Your task to perform on an android device: Clear the cart on newegg.com. Add "dell xps" to the cart on newegg.com, then select checkout. Image 0: 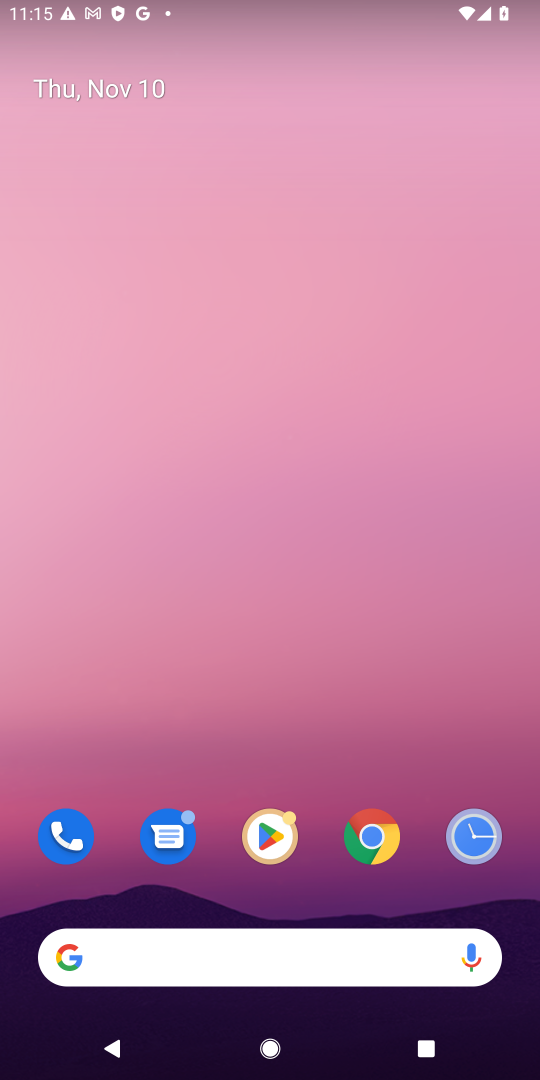
Step 0: drag from (166, 910) to (308, 127)
Your task to perform on an android device: Clear the cart on newegg.com. Add "dell xps" to the cart on newegg.com, then select checkout. Image 1: 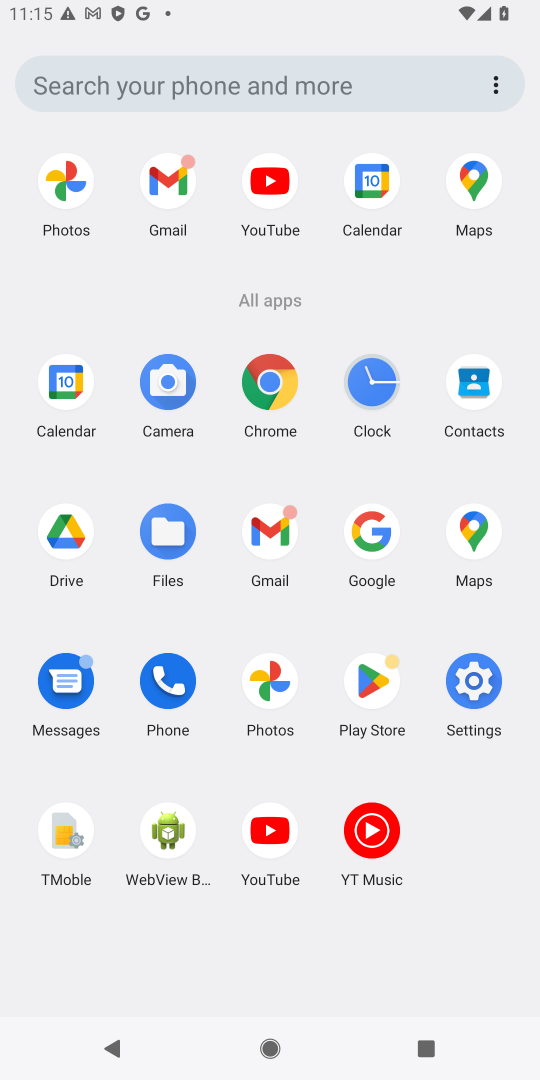
Step 1: click (292, 398)
Your task to perform on an android device: Clear the cart on newegg.com. Add "dell xps" to the cart on newegg.com, then select checkout. Image 2: 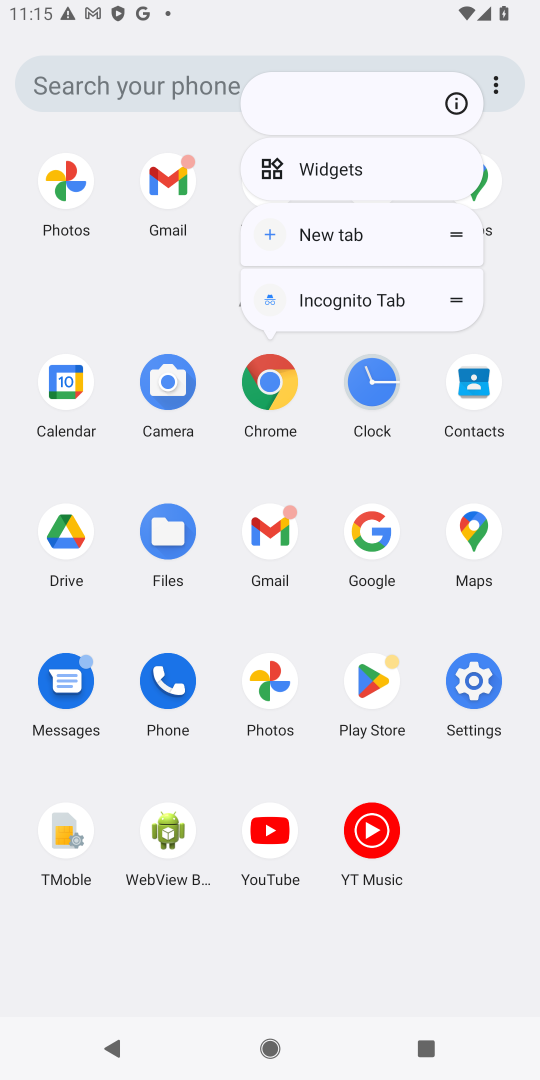
Step 2: click (292, 397)
Your task to perform on an android device: Clear the cart on newegg.com. Add "dell xps" to the cart on newegg.com, then select checkout. Image 3: 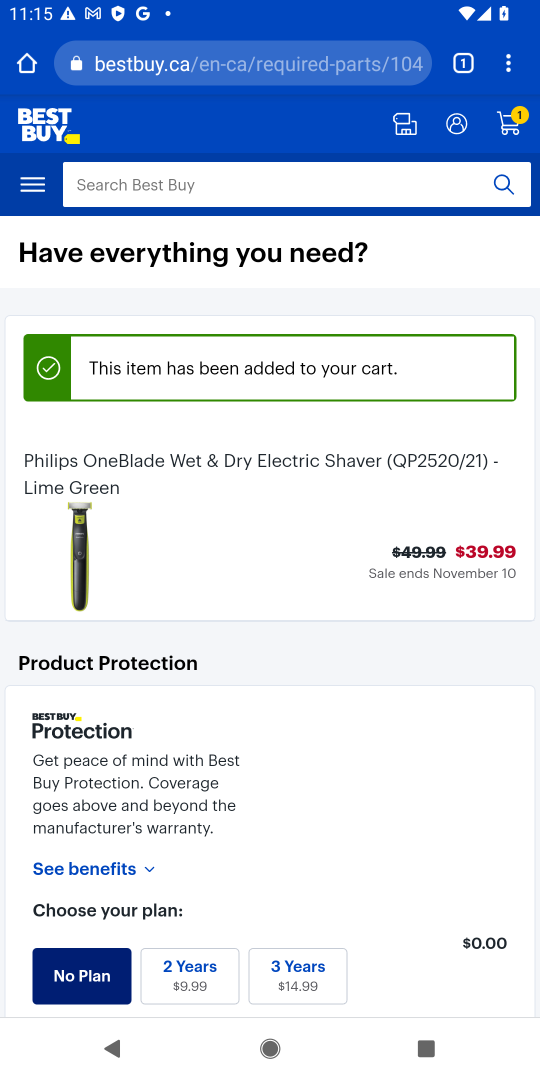
Step 3: click (250, 74)
Your task to perform on an android device: Clear the cart on newegg.com. Add "dell xps" to the cart on newegg.com, then select checkout. Image 4: 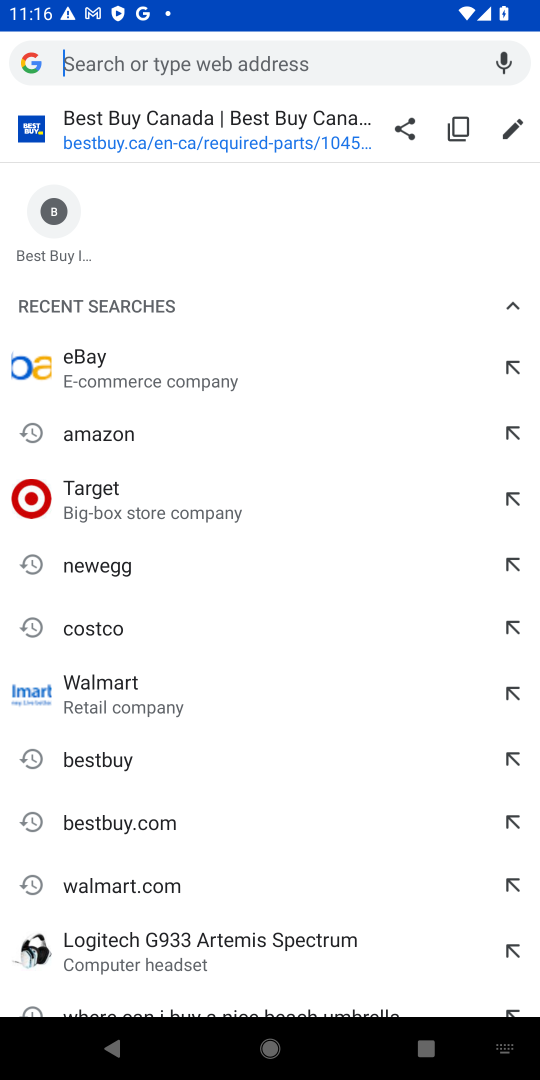
Step 4: type "newegg.com"
Your task to perform on an android device: Clear the cart on newegg.com. Add "dell xps" to the cart on newegg.com, then select checkout. Image 5: 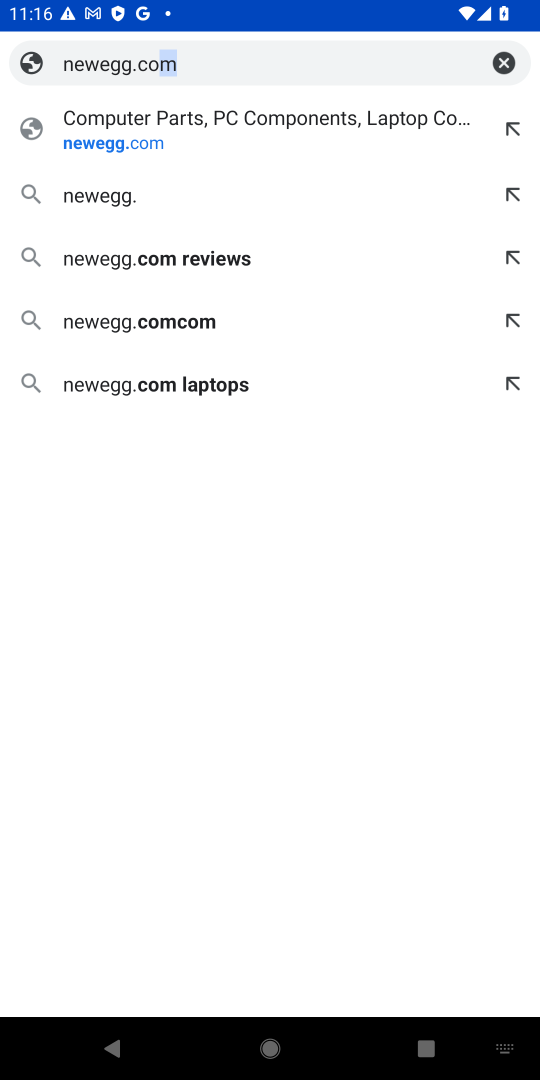
Step 5: press enter
Your task to perform on an android device: Clear the cart on newegg.com. Add "dell xps" to the cart on newegg.com, then select checkout. Image 6: 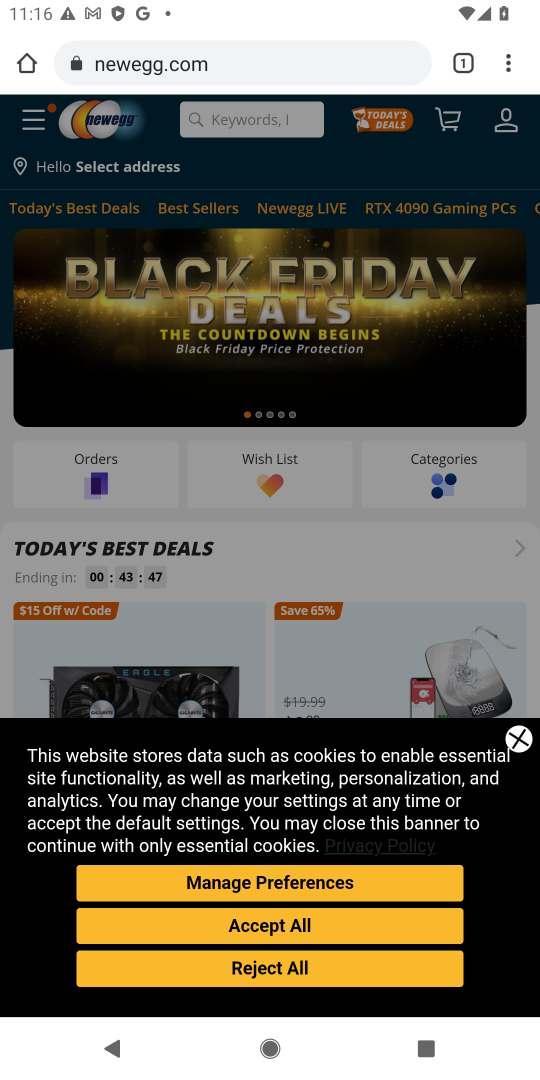
Step 6: click (240, 116)
Your task to perform on an android device: Clear the cart on newegg.com. Add "dell xps" to the cart on newegg.com, then select checkout. Image 7: 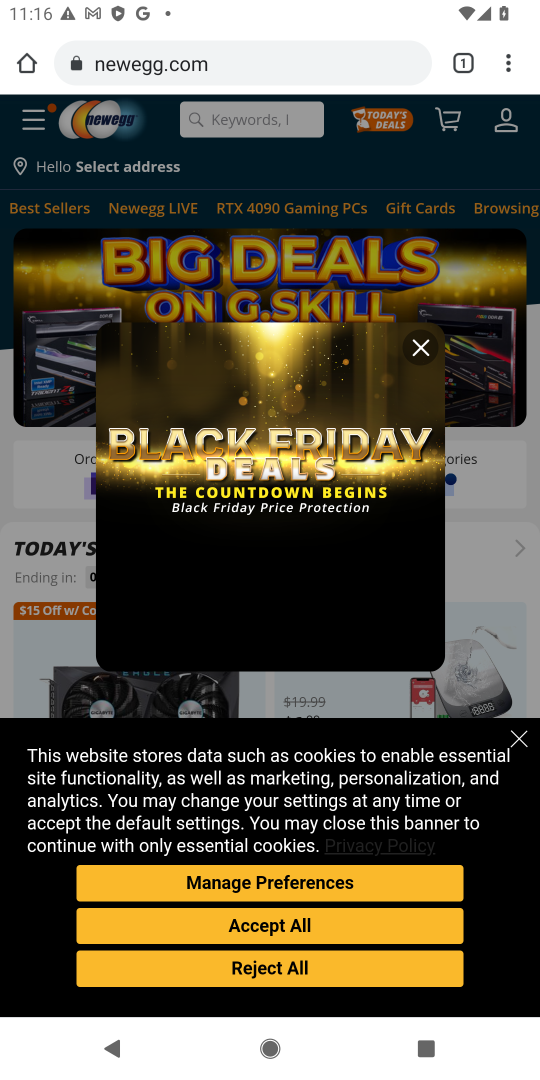
Step 7: click (264, 122)
Your task to perform on an android device: Clear the cart on newegg.com. Add "dell xps" to the cart on newegg.com, then select checkout. Image 8: 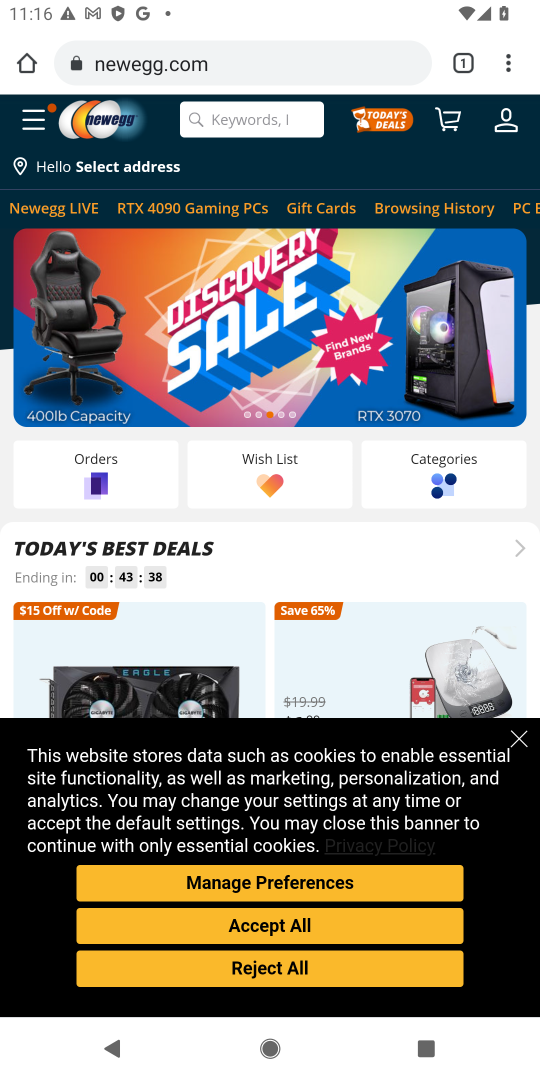
Step 8: click (336, 921)
Your task to perform on an android device: Clear the cart on newegg.com. Add "dell xps" to the cart on newegg.com, then select checkout. Image 9: 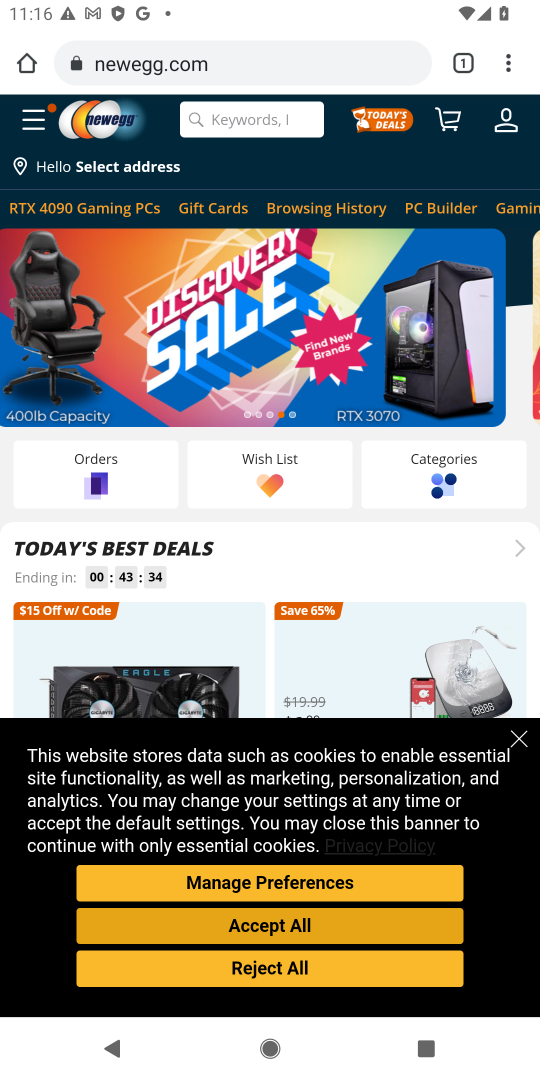
Step 9: click (293, 920)
Your task to perform on an android device: Clear the cart on newegg.com. Add "dell xps" to the cart on newegg.com, then select checkout. Image 10: 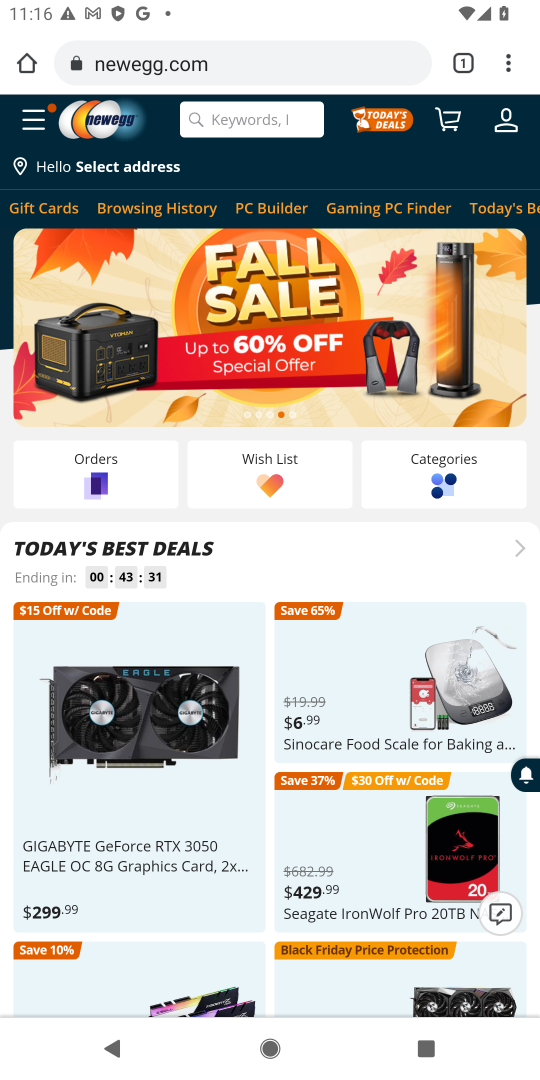
Step 10: click (224, 123)
Your task to perform on an android device: Clear the cart on newegg.com. Add "dell xps" to the cart on newegg.com, then select checkout. Image 11: 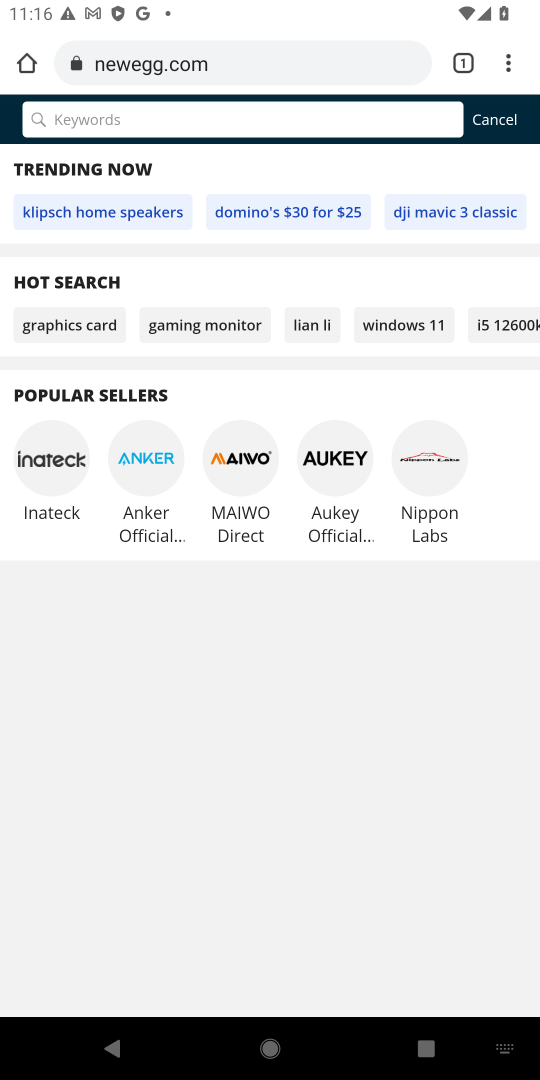
Step 11: type "dell xps"
Your task to perform on an android device: Clear the cart on newegg.com. Add "dell xps" to the cart on newegg.com, then select checkout. Image 12: 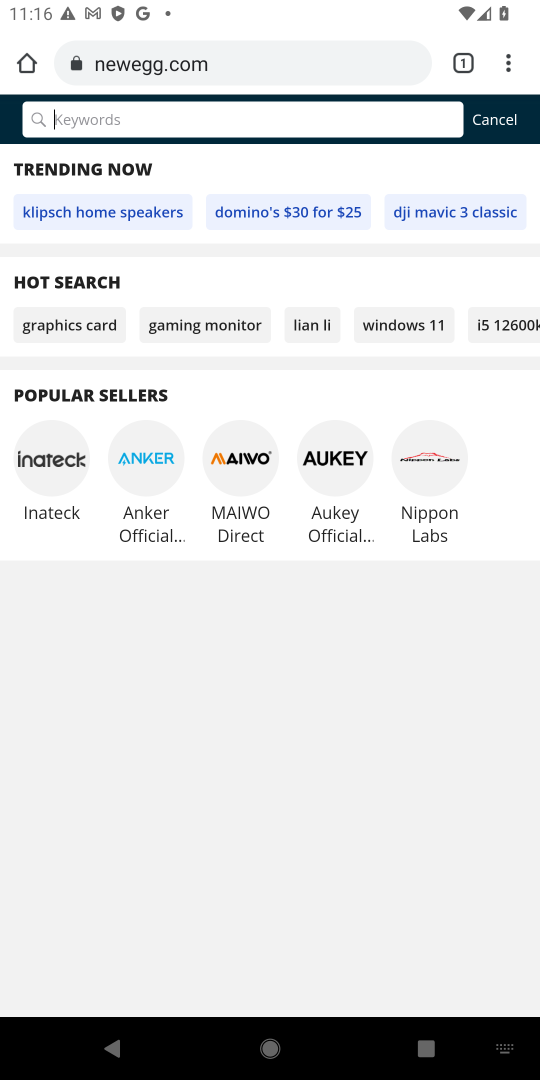
Step 12: press enter
Your task to perform on an android device: Clear the cart on newegg.com. Add "dell xps" to the cart on newegg.com, then select checkout. Image 13: 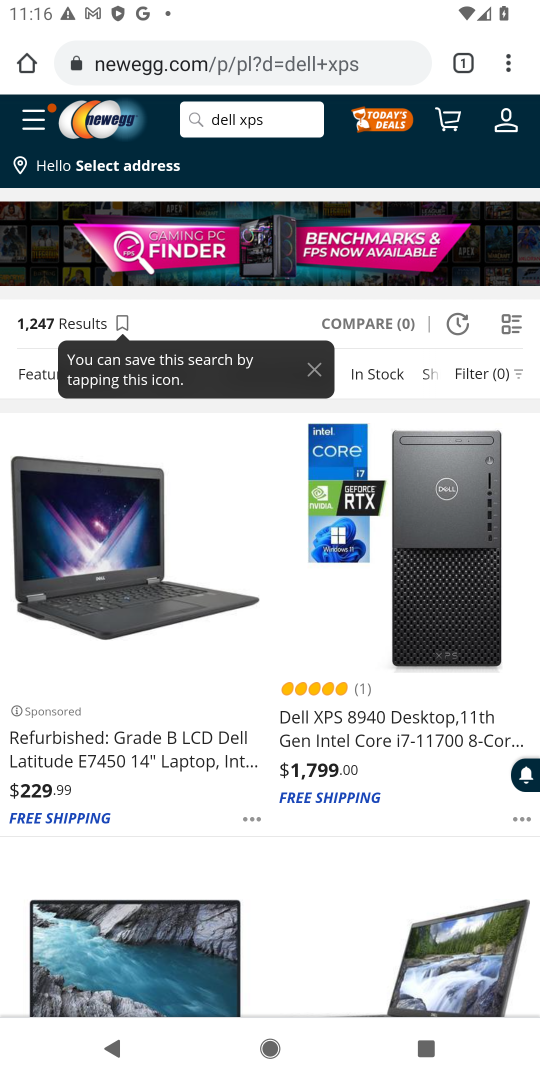
Step 13: click (103, 766)
Your task to perform on an android device: Clear the cart on newegg.com. Add "dell xps" to the cart on newegg.com, then select checkout. Image 14: 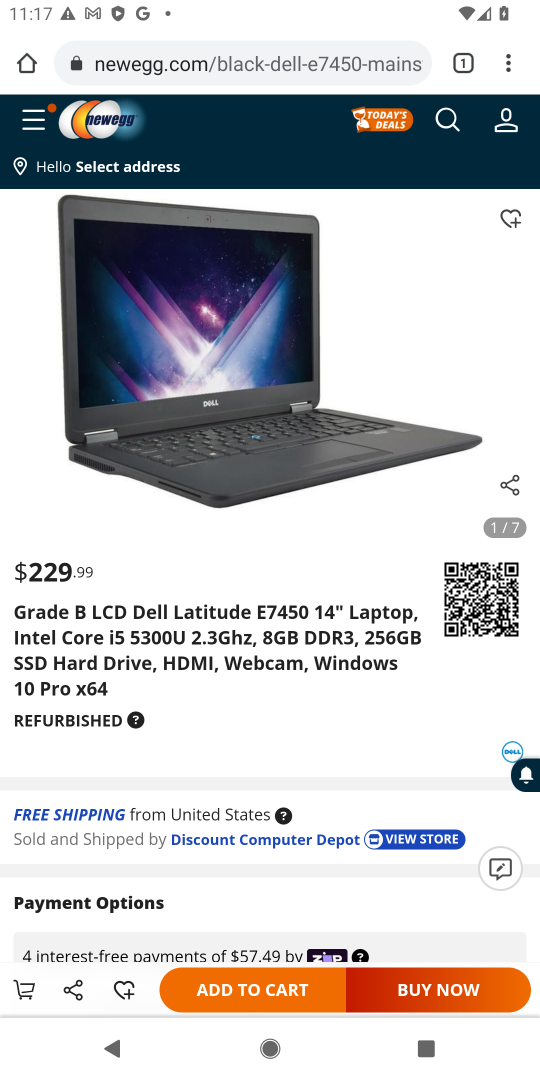
Step 14: click (262, 989)
Your task to perform on an android device: Clear the cart on newegg.com. Add "dell xps" to the cart on newegg.com, then select checkout. Image 15: 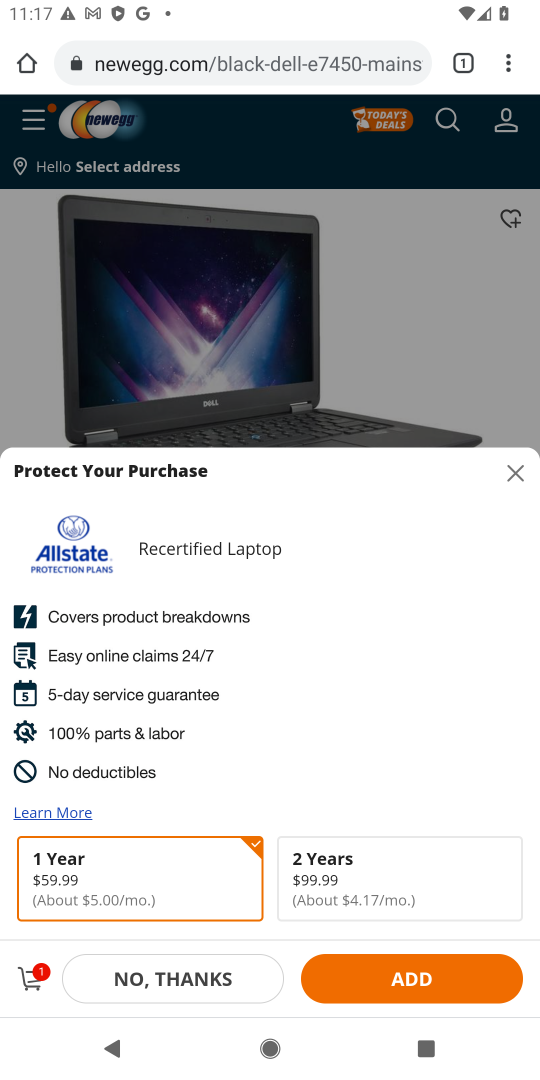
Step 15: click (243, 981)
Your task to perform on an android device: Clear the cart on newegg.com. Add "dell xps" to the cart on newegg.com, then select checkout. Image 16: 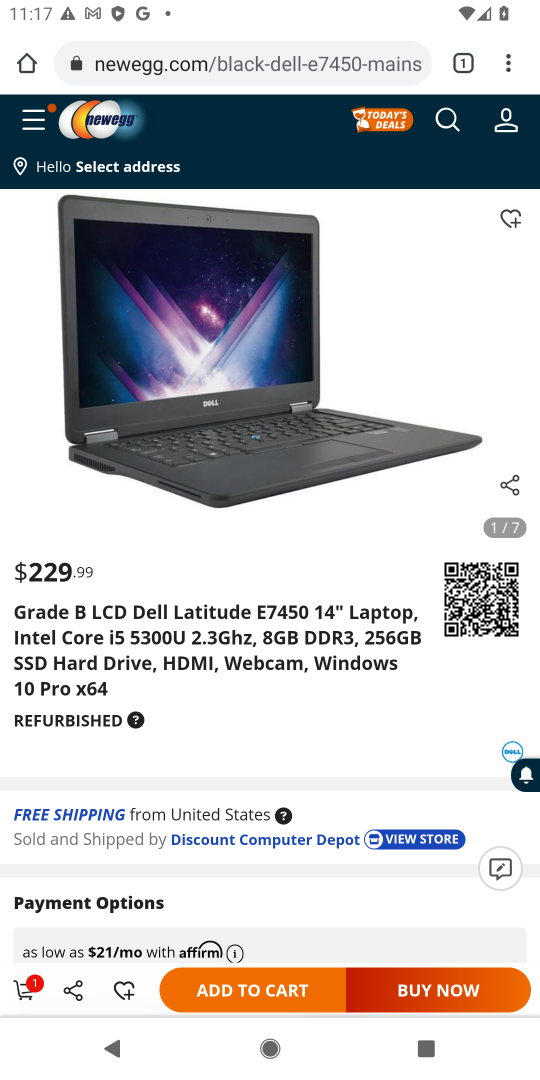
Step 16: click (293, 986)
Your task to perform on an android device: Clear the cart on newegg.com. Add "dell xps" to the cart on newegg.com, then select checkout. Image 17: 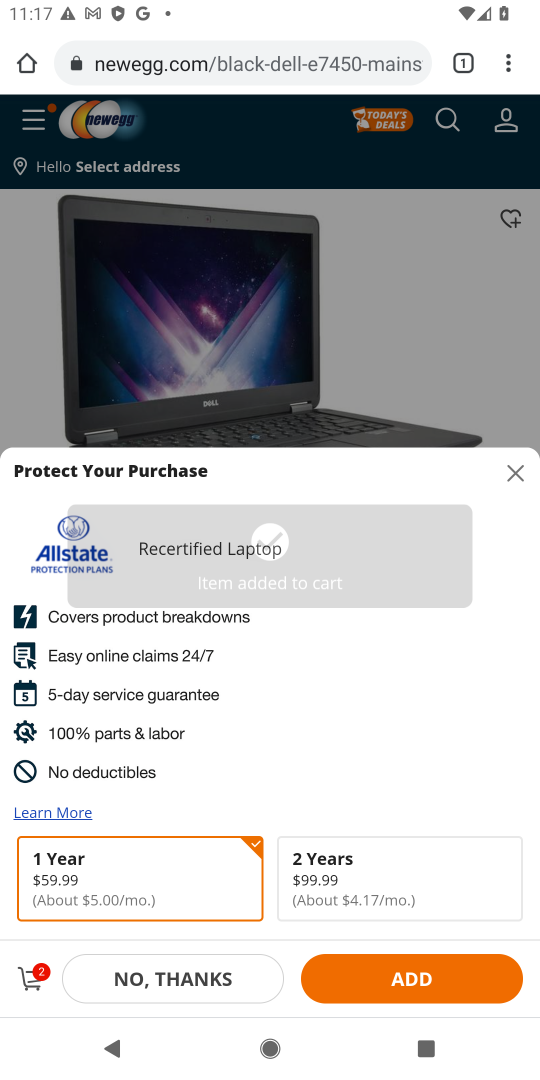
Step 17: click (46, 978)
Your task to perform on an android device: Clear the cart on newegg.com. Add "dell xps" to the cart on newegg.com, then select checkout. Image 18: 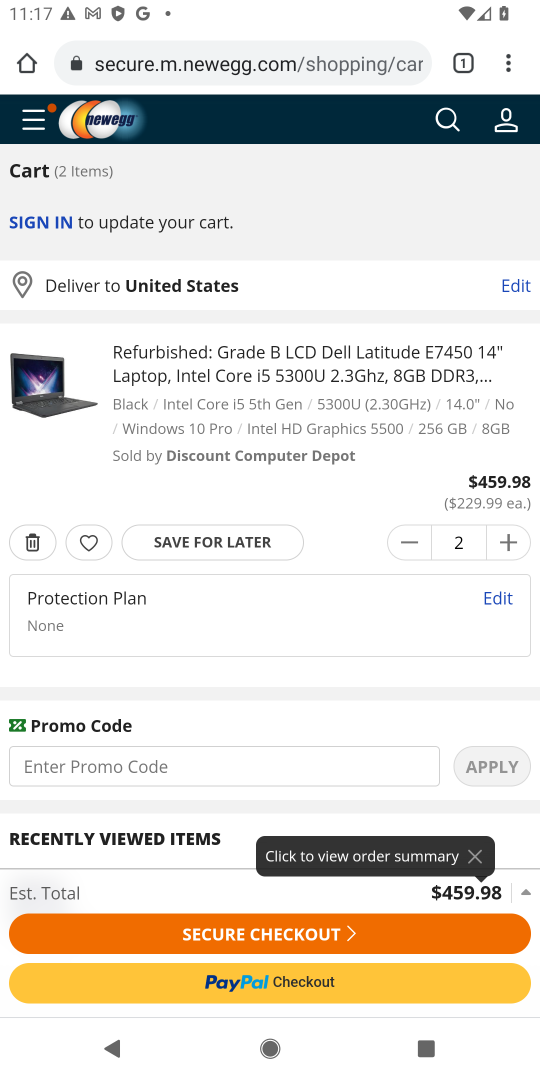
Step 18: click (334, 888)
Your task to perform on an android device: Clear the cart on newegg.com. Add "dell xps" to the cart on newegg.com, then select checkout. Image 19: 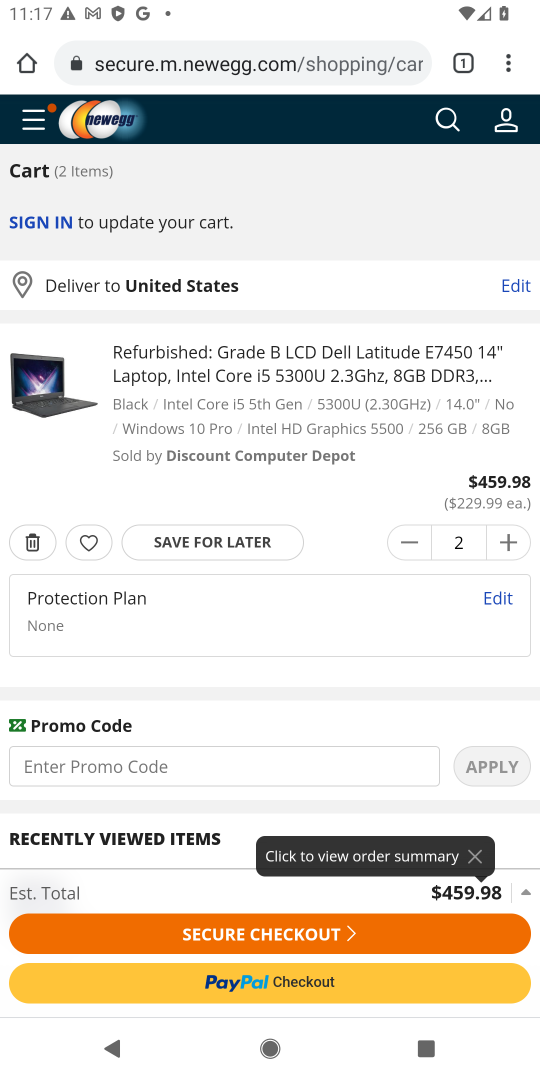
Step 19: click (307, 932)
Your task to perform on an android device: Clear the cart on newegg.com. Add "dell xps" to the cart on newegg.com, then select checkout. Image 20: 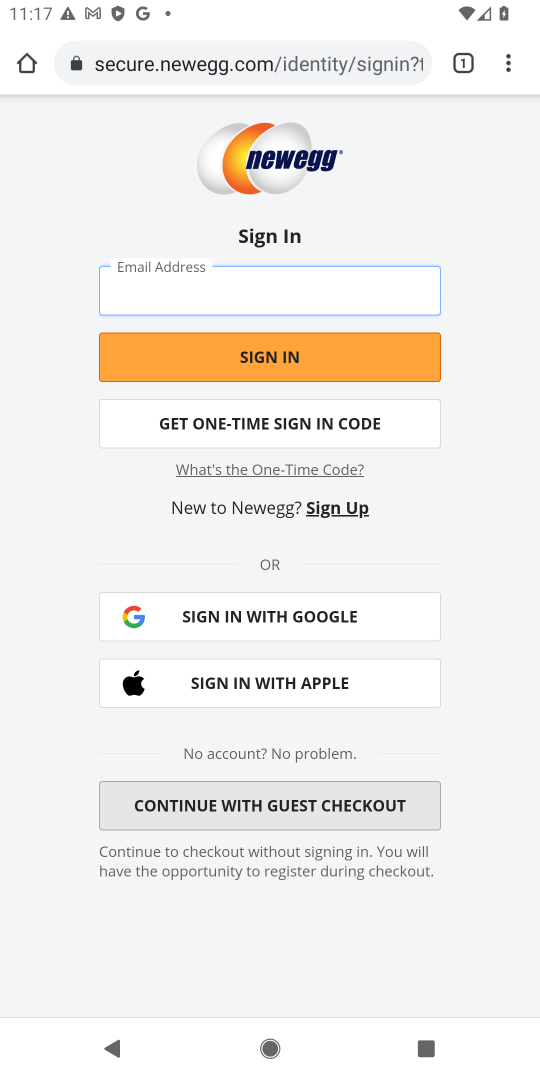
Step 20: task complete